Your task to perform on an android device: Go to privacy settings Image 0: 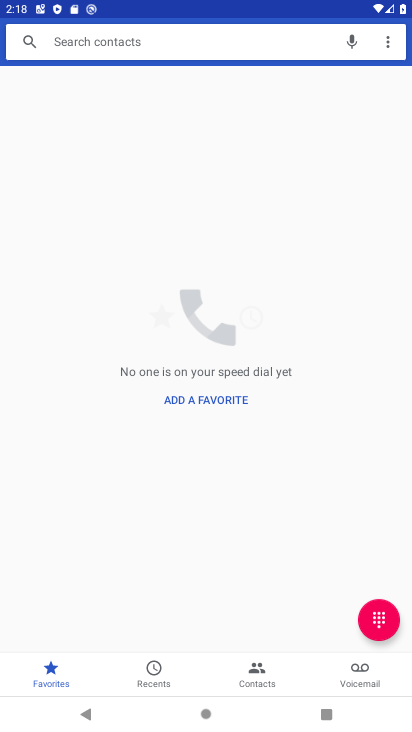
Step 0: drag from (252, 670) to (286, 160)
Your task to perform on an android device: Go to privacy settings Image 1: 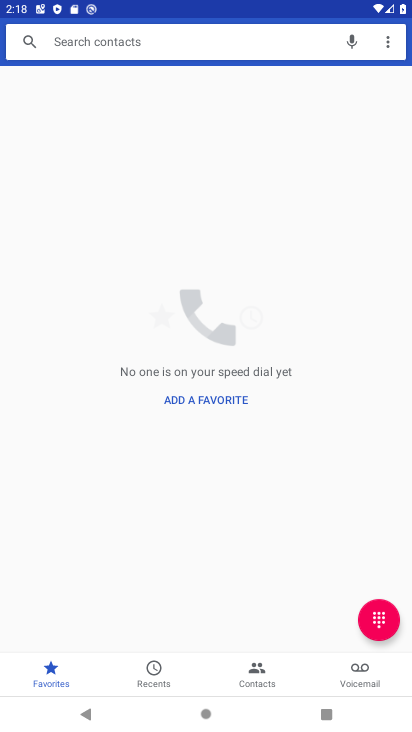
Step 1: press home button
Your task to perform on an android device: Go to privacy settings Image 2: 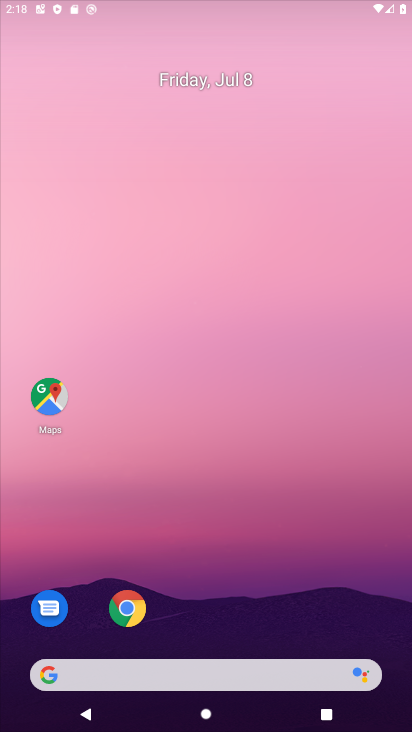
Step 2: drag from (233, 667) to (314, 16)
Your task to perform on an android device: Go to privacy settings Image 3: 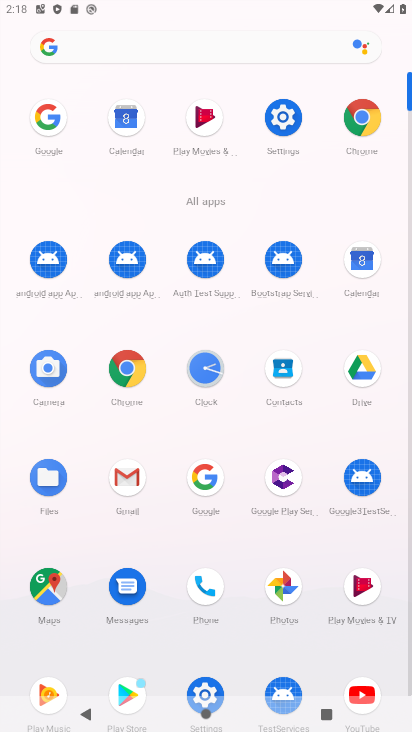
Step 3: click (289, 123)
Your task to perform on an android device: Go to privacy settings Image 4: 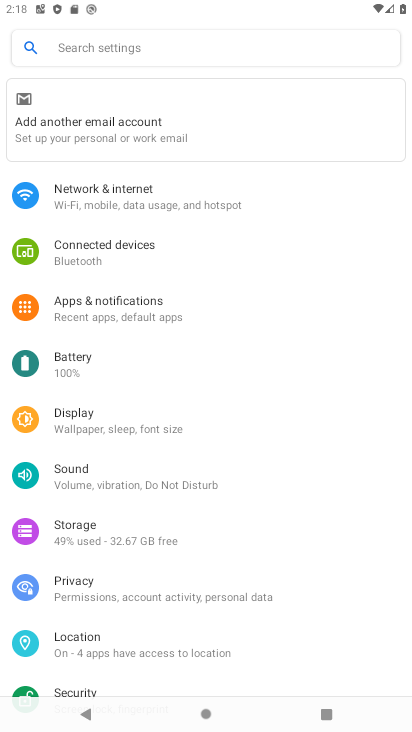
Step 4: click (178, 582)
Your task to perform on an android device: Go to privacy settings Image 5: 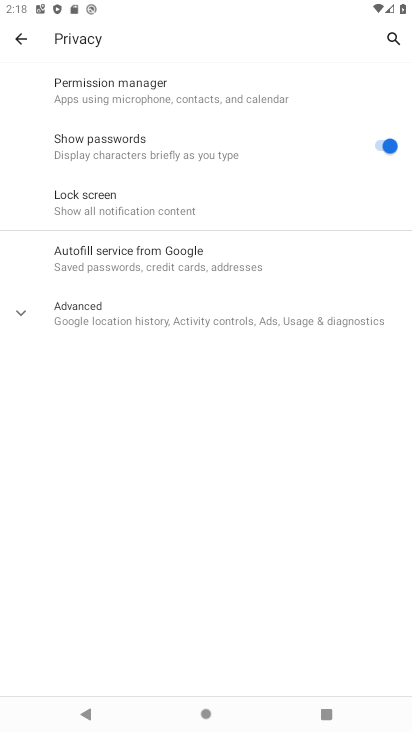
Step 5: task complete